Your task to perform on an android device: Go to Yahoo.com Image 0: 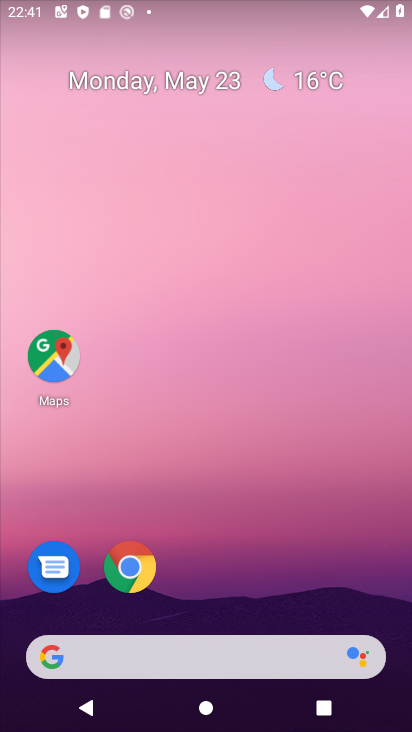
Step 0: click (238, 144)
Your task to perform on an android device: Go to Yahoo.com Image 1: 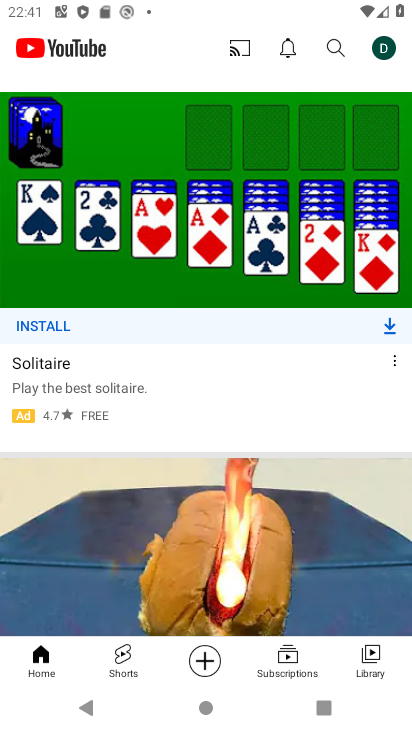
Step 1: drag from (218, 546) to (309, 162)
Your task to perform on an android device: Go to Yahoo.com Image 2: 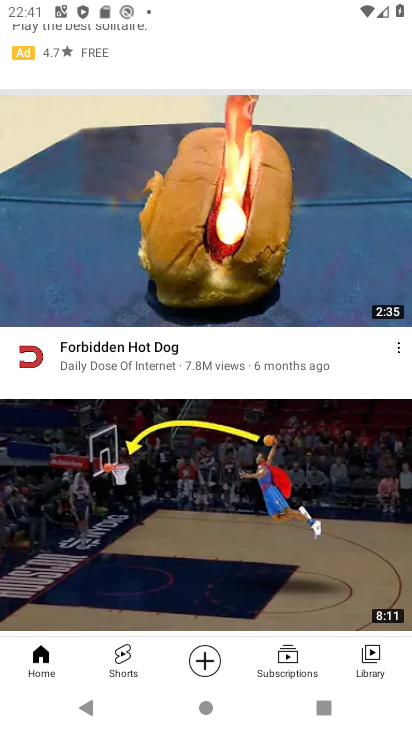
Step 2: drag from (271, 237) to (291, 658)
Your task to perform on an android device: Go to Yahoo.com Image 3: 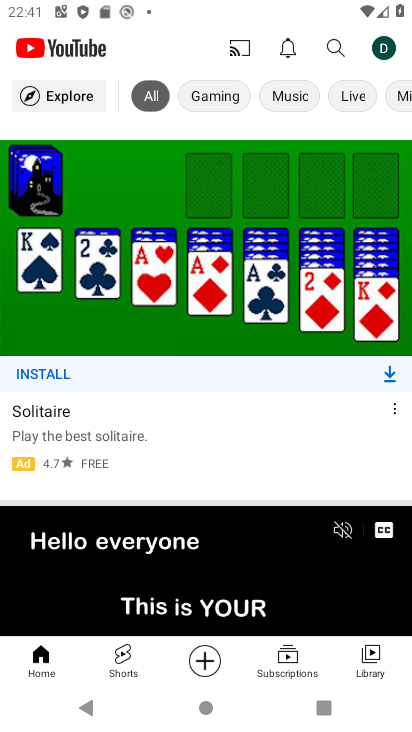
Step 3: drag from (280, 258) to (342, 677)
Your task to perform on an android device: Go to Yahoo.com Image 4: 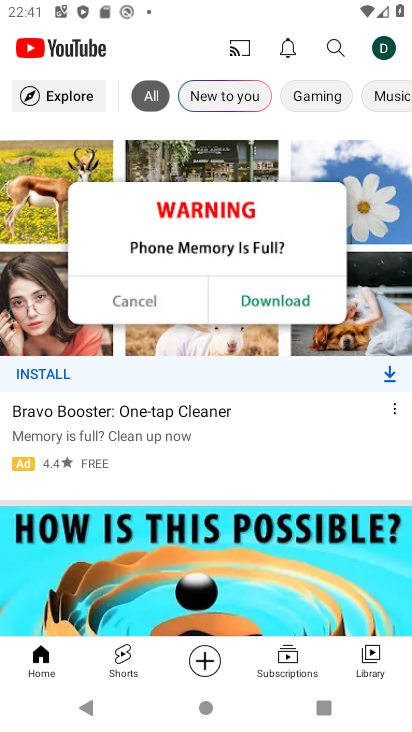
Step 4: press home button
Your task to perform on an android device: Go to Yahoo.com Image 5: 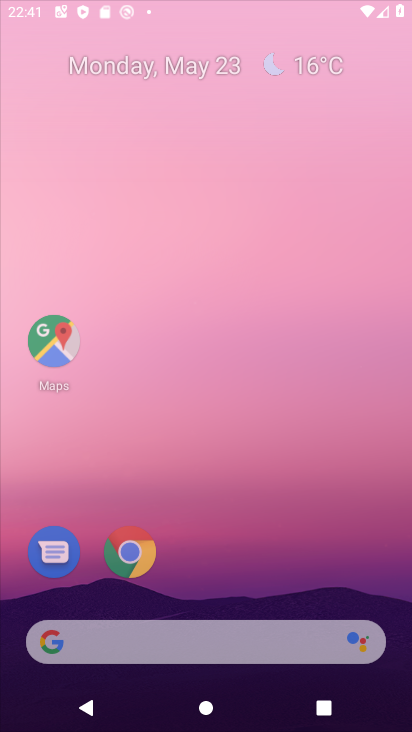
Step 5: drag from (227, 527) to (276, 118)
Your task to perform on an android device: Go to Yahoo.com Image 6: 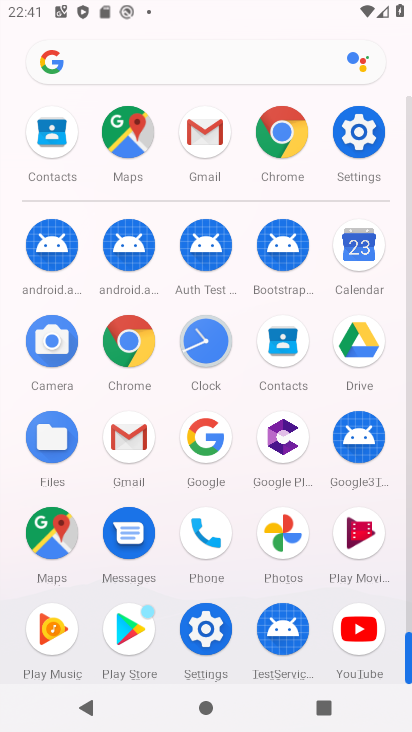
Step 6: click (131, 61)
Your task to perform on an android device: Go to Yahoo.com Image 7: 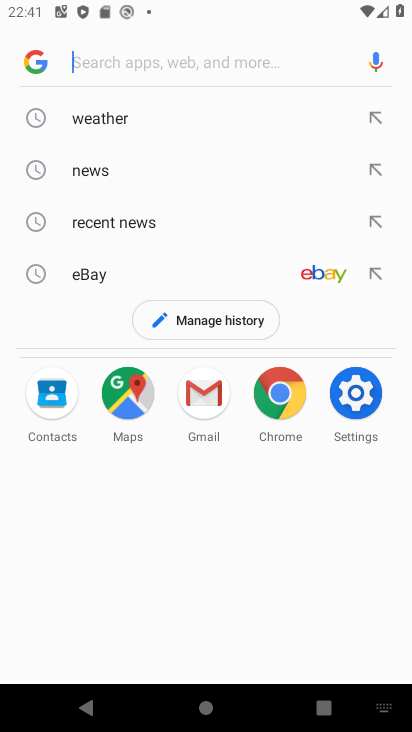
Step 7: type "yahoo.com"
Your task to perform on an android device: Go to Yahoo.com Image 8: 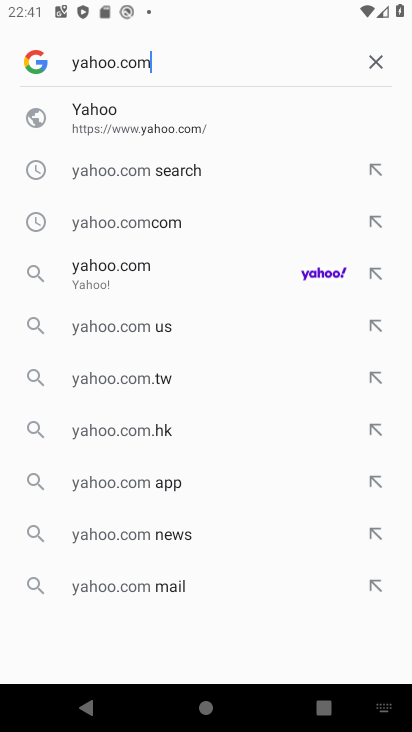
Step 8: click (172, 125)
Your task to perform on an android device: Go to Yahoo.com Image 9: 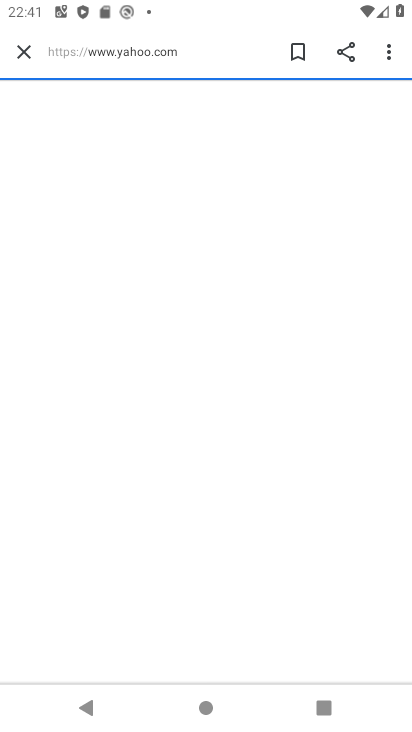
Step 9: task complete